Your task to perform on an android device: What is the recent news? Image 0: 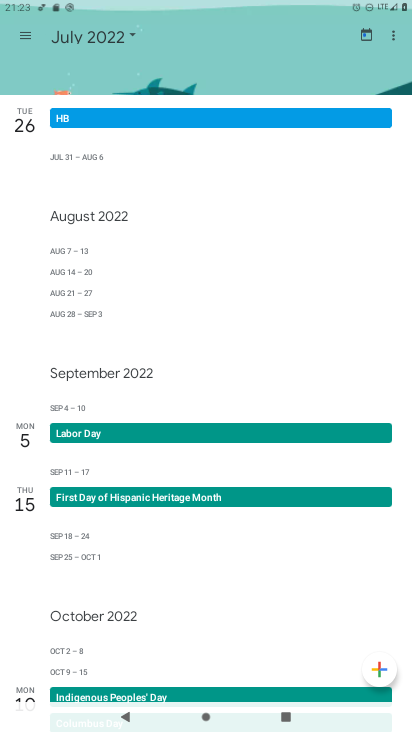
Step 0: press home button
Your task to perform on an android device: What is the recent news? Image 1: 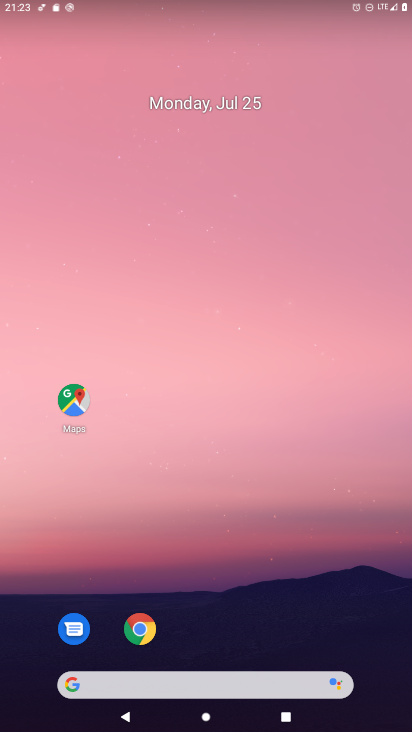
Step 1: click (138, 631)
Your task to perform on an android device: What is the recent news? Image 2: 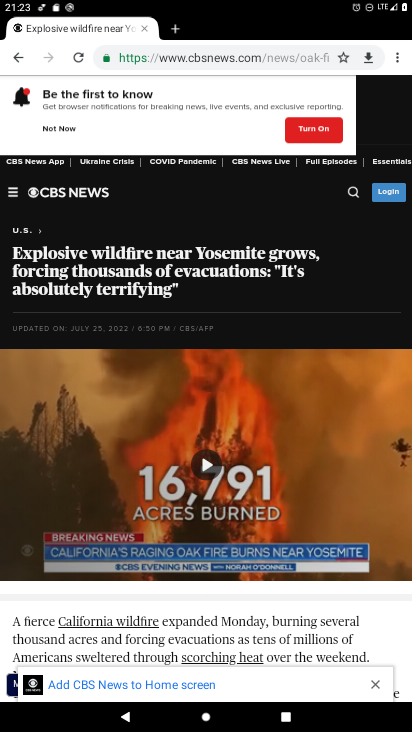
Step 2: click (298, 54)
Your task to perform on an android device: What is the recent news? Image 3: 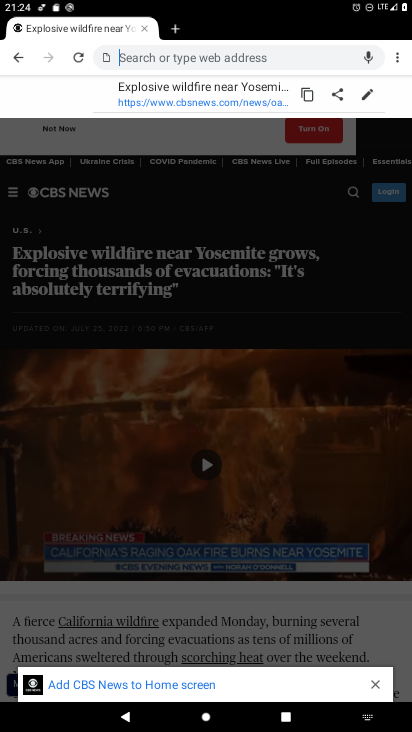
Step 3: type "recent news"
Your task to perform on an android device: What is the recent news? Image 4: 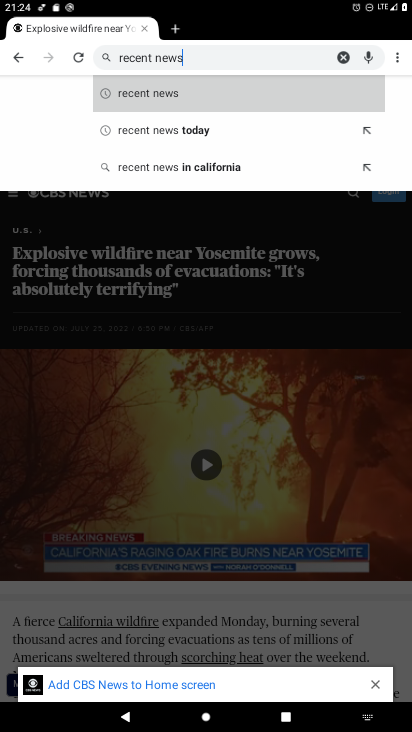
Step 4: click (246, 88)
Your task to perform on an android device: What is the recent news? Image 5: 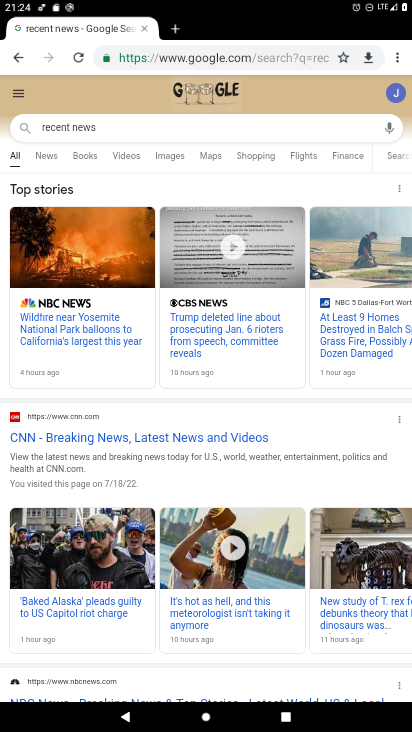
Step 5: click (57, 331)
Your task to perform on an android device: What is the recent news? Image 6: 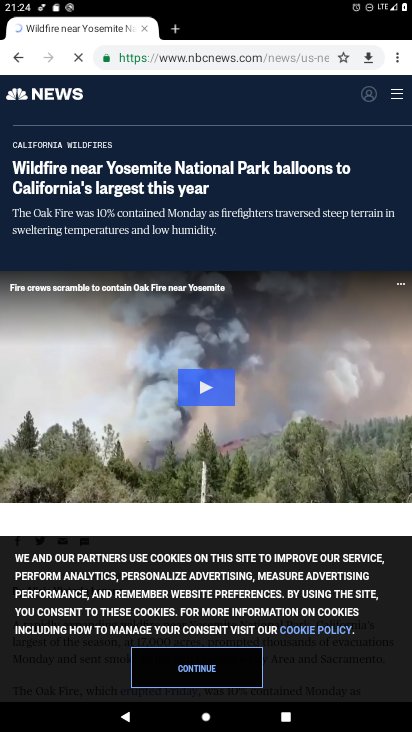
Step 6: task complete